Your task to perform on an android device: Show the shopping cart on ebay.com. Search for "beats solo 3" on ebay.com, select the first entry, add it to the cart, then select checkout. Image 0: 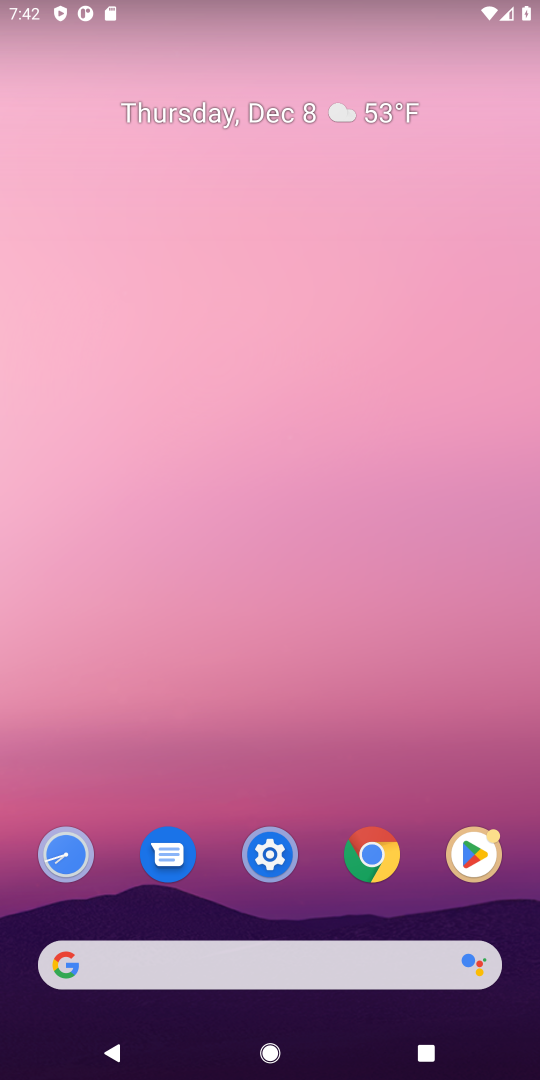
Step 0: press home button
Your task to perform on an android device: Show the shopping cart on ebay.com. Search for "beats solo 3" on ebay.com, select the first entry, add it to the cart, then select checkout. Image 1: 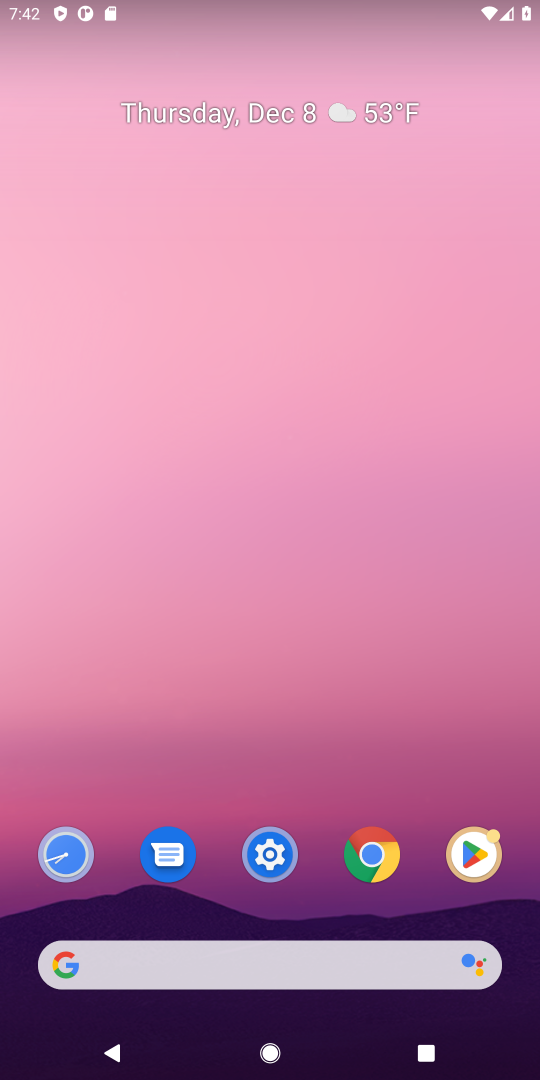
Step 1: click (98, 956)
Your task to perform on an android device: Show the shopping cart on ebay.com. Search for "beats solo 3" on ebay.com, select the first entry, add it to the cart, then select checkout. Image 2: 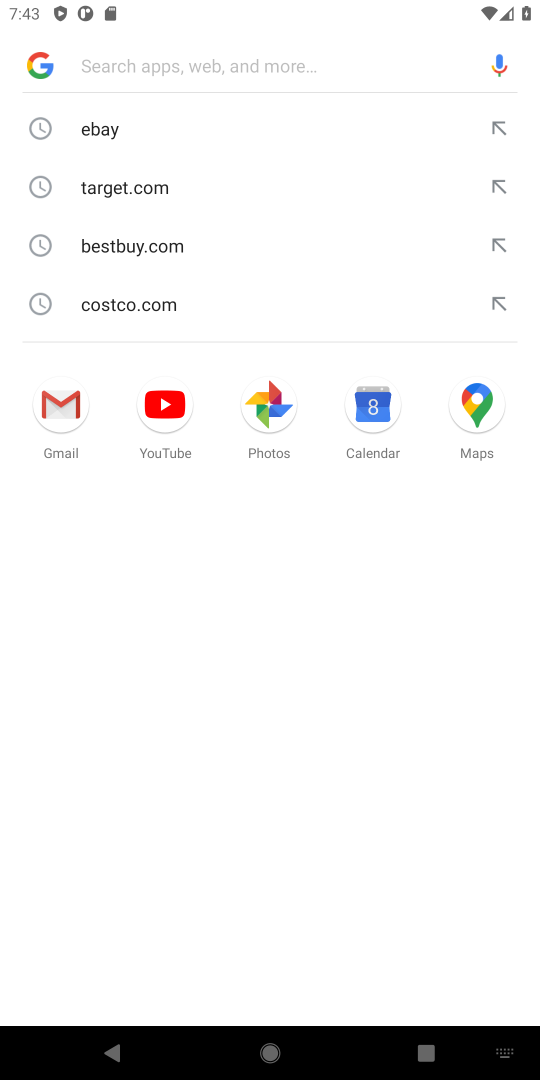
Step 2: type "ebay.com"
Your task to perform on an android device: Show the shopping cart on ebay.com. Search for "beats solo 3" on ebay.com, select the first entry, add it to the cart, then select checkout. Image 3: 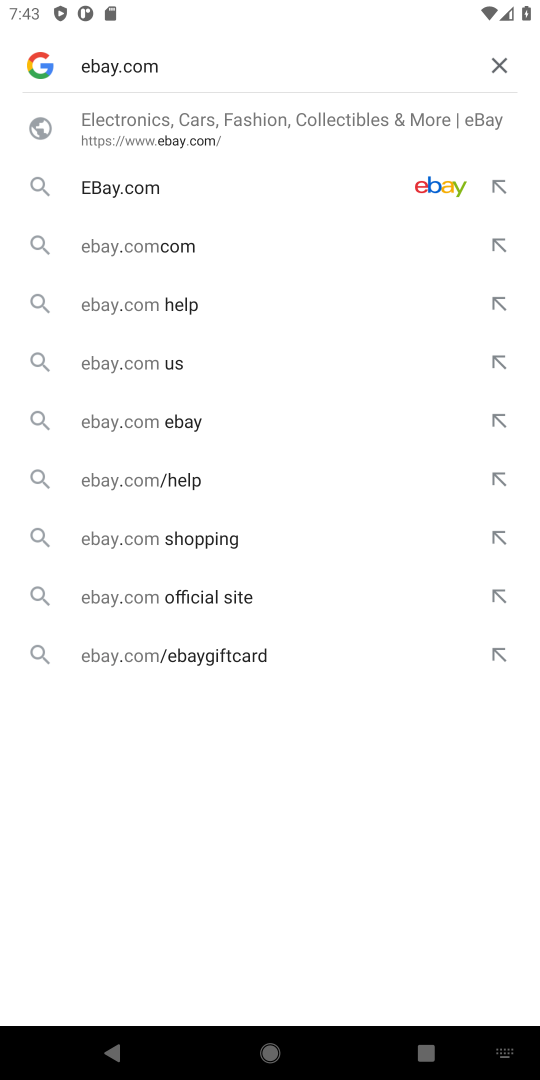
Step 3: press enter
Your task to perform on an android device: Show the shopping cart on ebay.com. Search for "beats solo 3" on ebay.com, select the first entry, add it to the cart, then select checkout. Image 4: 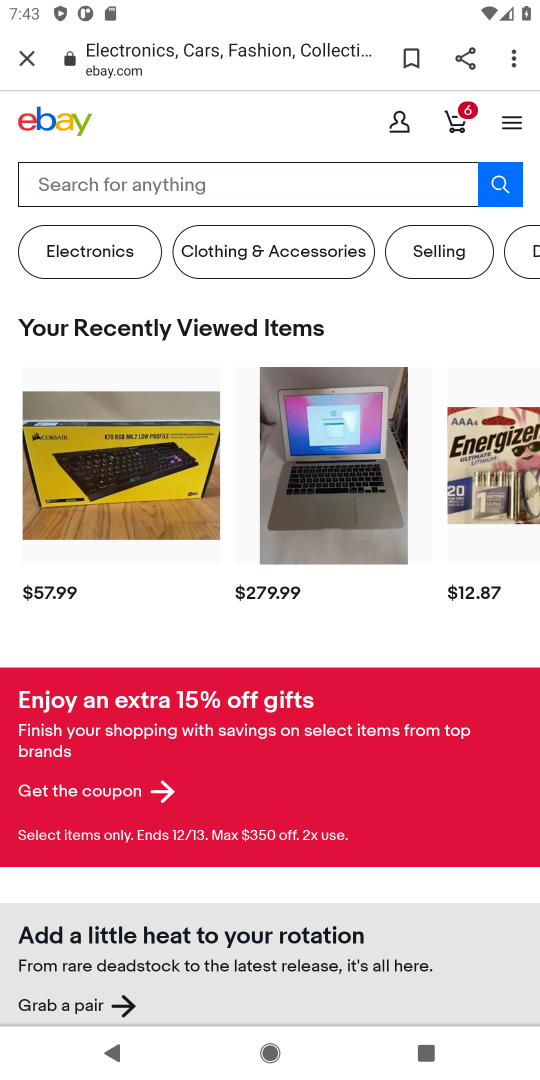
Step 4: click (457, 114)
Your task to perform on an android device: Show the shopping cart on ebay.com. Search for "beats solo 3" on ebay.com, select the first entry, add it to the cart, then select checkout. Image 5: 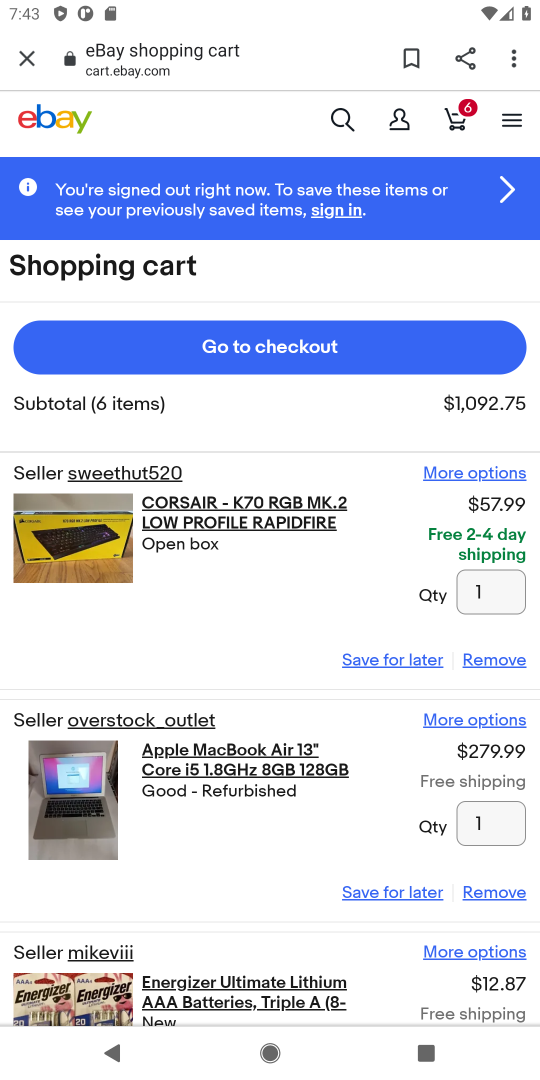
Step 5: click (335, 111)
Your task to perform on an android device: Show the shopping cart on ebay.com. Search for "beats solo 3" on ebay.com, select the first entry, add it to the cart, then select checkout. Image 6: 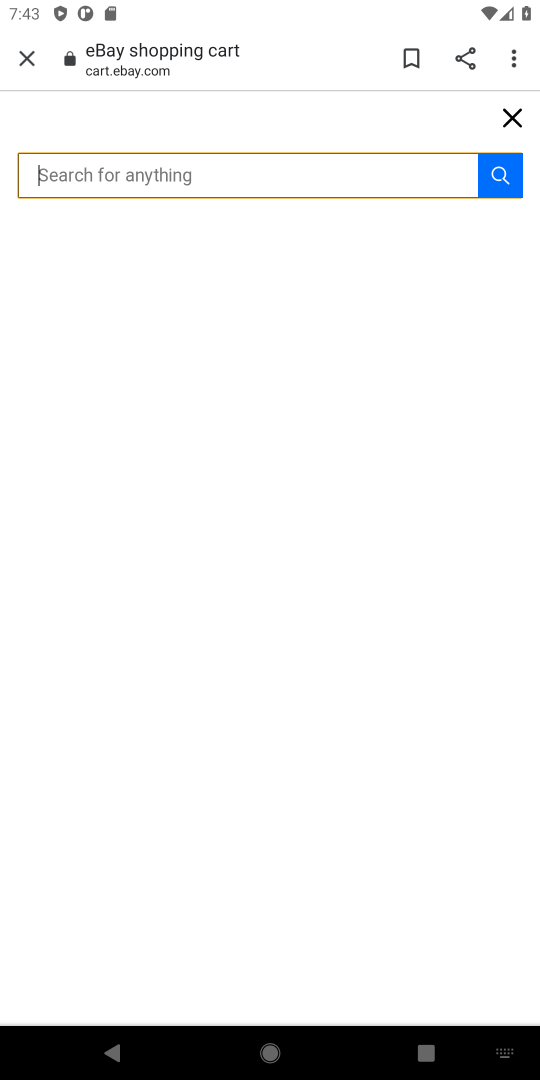
Step 6: type "beats solo 3"
Your task to perform on an android device: Show the shopping cart on ebay.com. Search for "beats solo 3" on ebay.com, select the first entry, add it to the cart, then select checkout. Image 7: 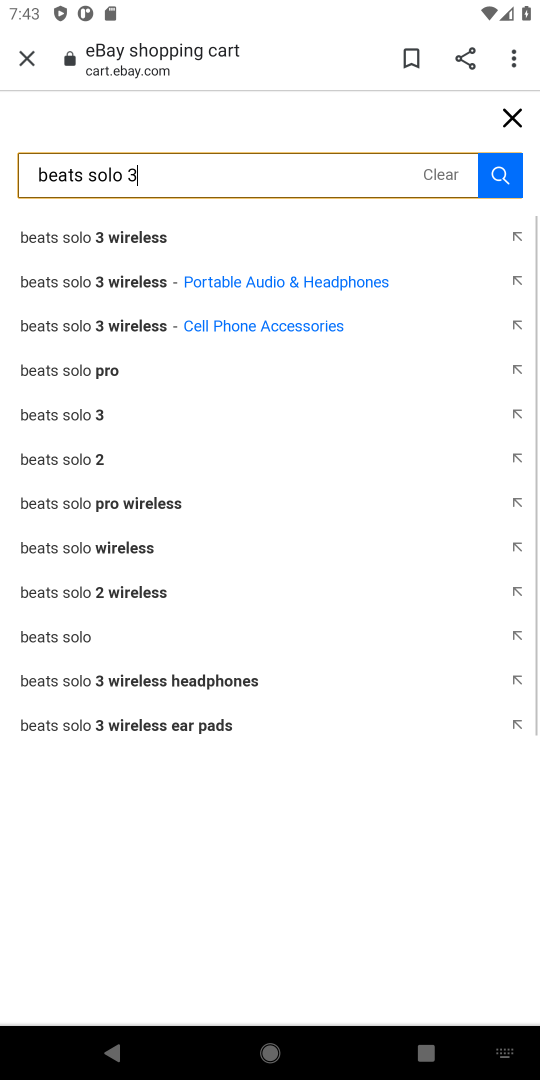
Step 7: press enter
Your task to perform on an android device: Show the shopping cart on ebay.com. Search for "beats solo 3" on ebay.com, select the first entry, add it to the cart, then select checkout. Image 8: 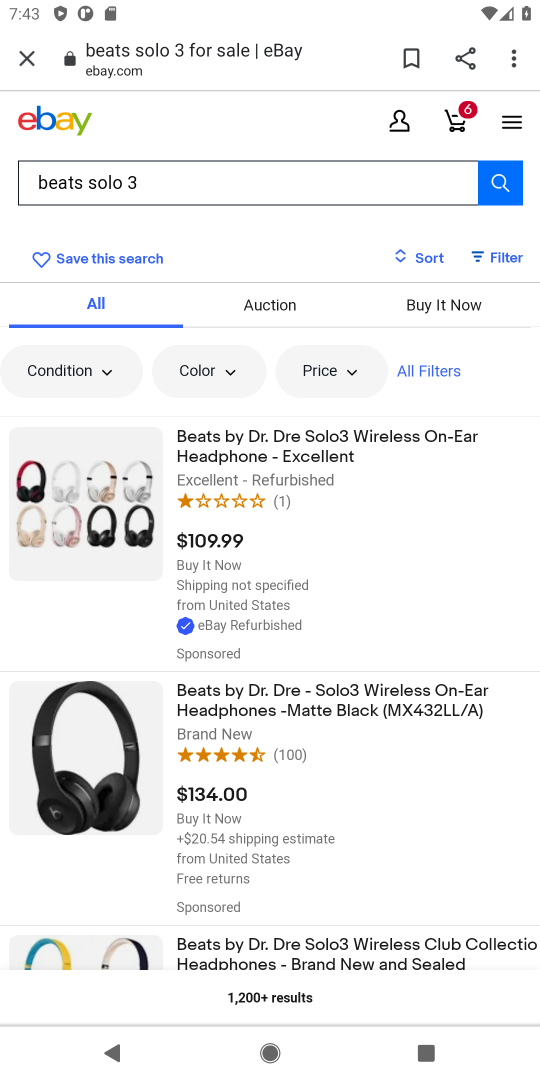
Step 8: click (244, 461)
Your task to perform on an android device: Show the shopping cart on ebay.com. Search for "beats solo 3" on ebay.com, select the first entry, add it to the cart, then select checkout. Image 9: 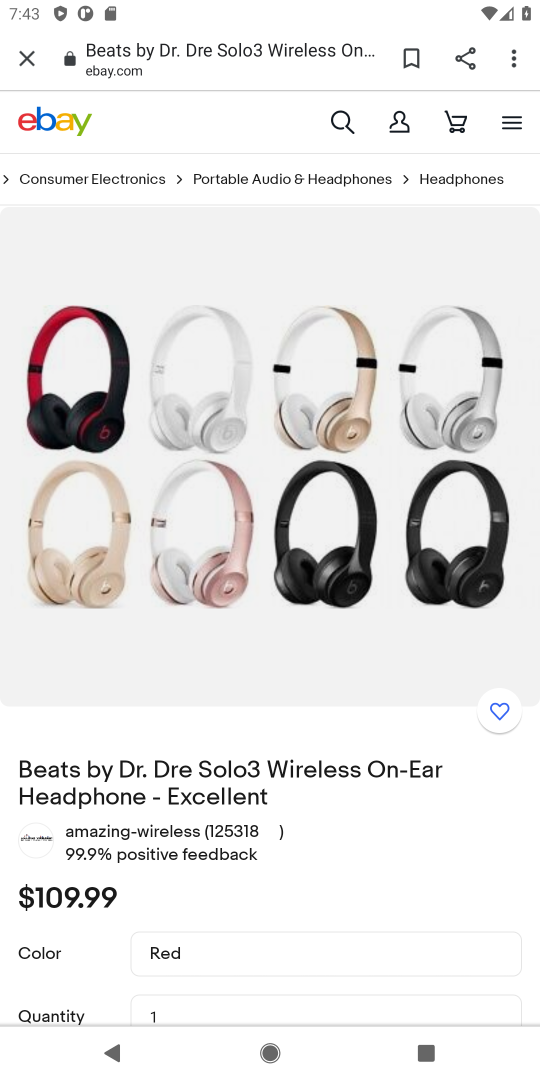
Step 9: drag from (374, 843) to (375, 345)
Your task to perform on an android device: Show the shopping cart on ebay.com. Search for "beats solo 3" on ebay.com, select the first entry, add it to the cart, then select checkout. Image 10: 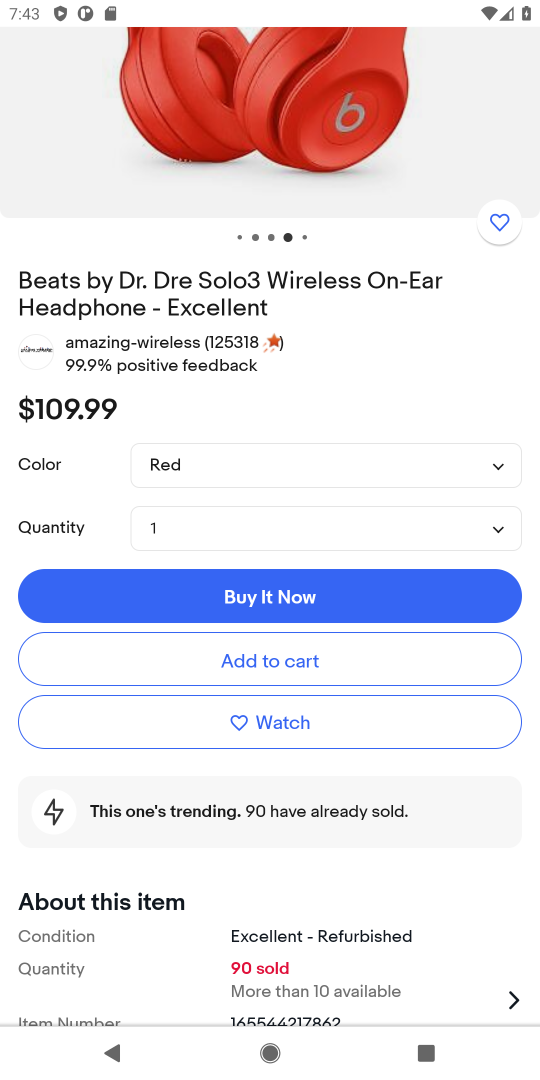
Step 10: click (264, 660)
Your task to perform on an android device: Show the shopping cart on ebay.com. Search for "beats solo 3" on ebay.com, select the first entry, add it to the cart, then select checkout. Image 11: 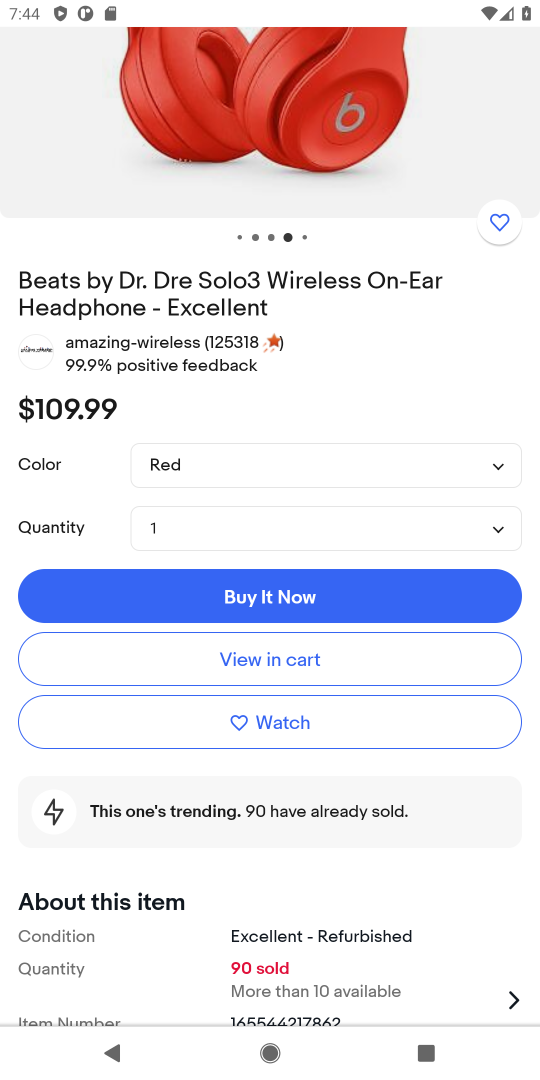
Step 11: task complete